Your task to perform on an android device: Open maps Image 0: 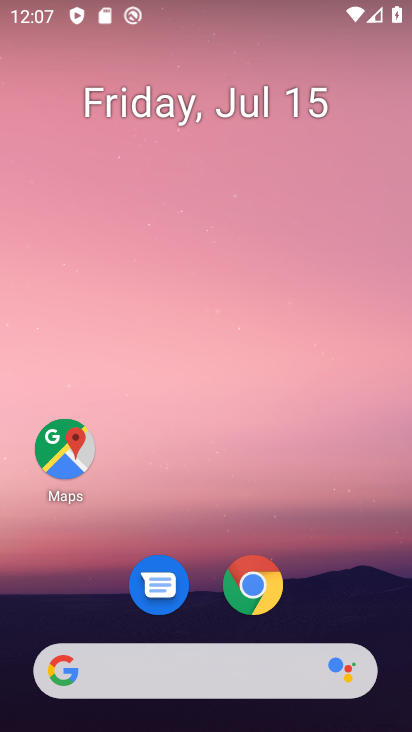
Step 0: click (57, 456)
Your task to perform on an android device: Open maps Image 1: 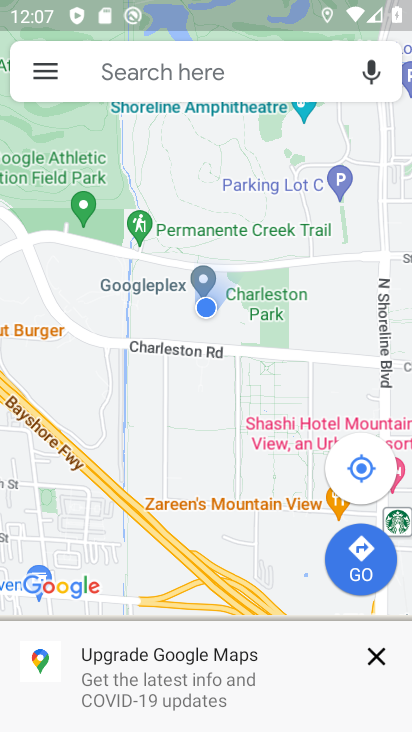
Step 1: task complete